Your task to perform on an android device: Turn off the flashlight Image 0: 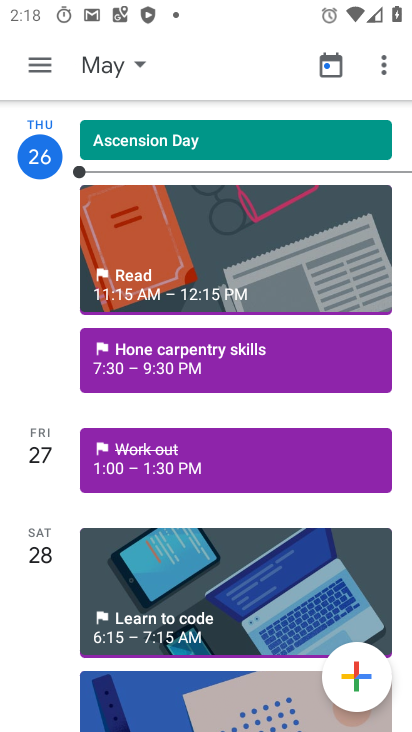
Step 0: press home button
Your task to perform on an android device: Turn off the flashlight Image 1: 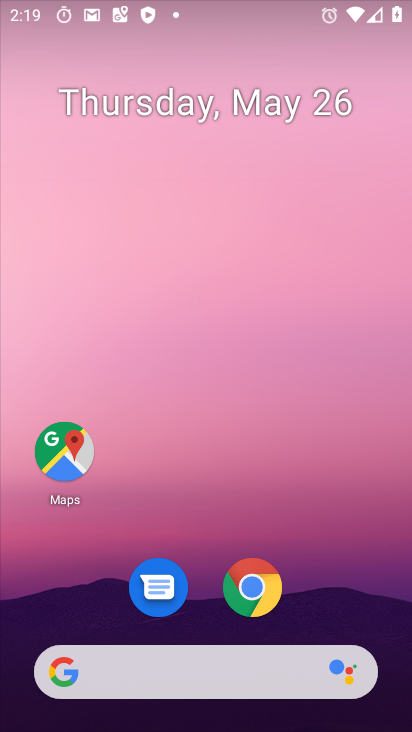
Step 1: drag from (279, 702) to (332, 180)
Your task to perform on an android device: Turn off the flashlight Image 2: 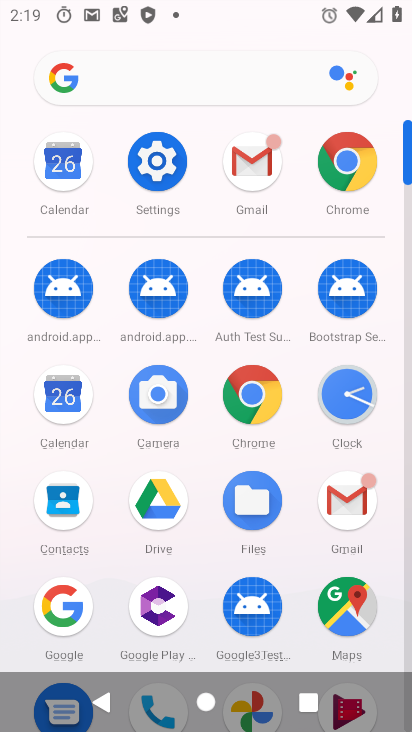
Step 2: click (154, 183)
Your task to perform on an android device: Turn off the flashlight Image 3: 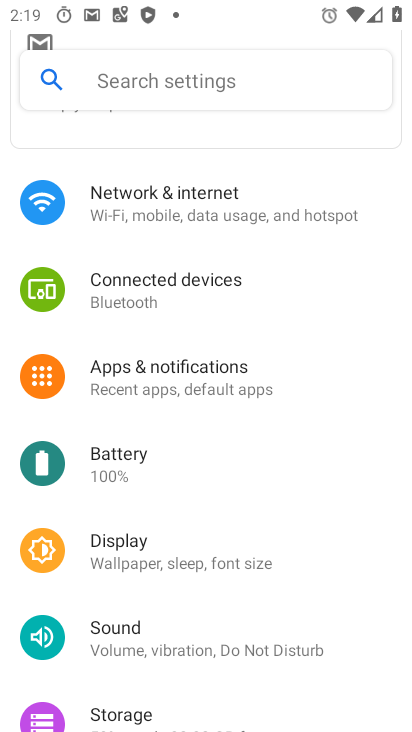
Step 3: click (145, 76)
Your task to perform on an android device: Turn off the flashlight Image 4: 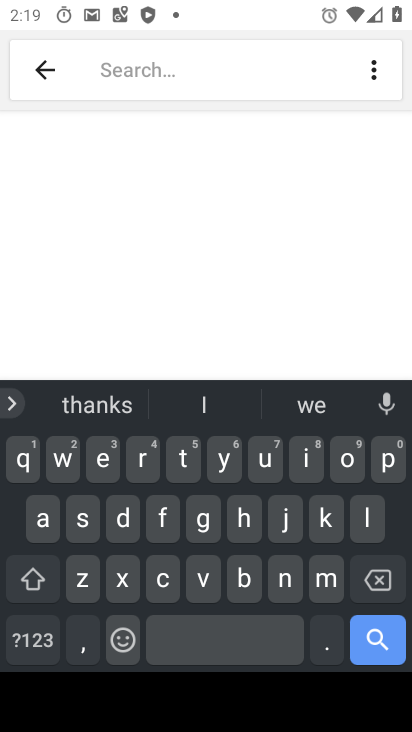
Step 4: click (166, 521)
Your task to perform on an android device: Turn off the flashlight Image 5: 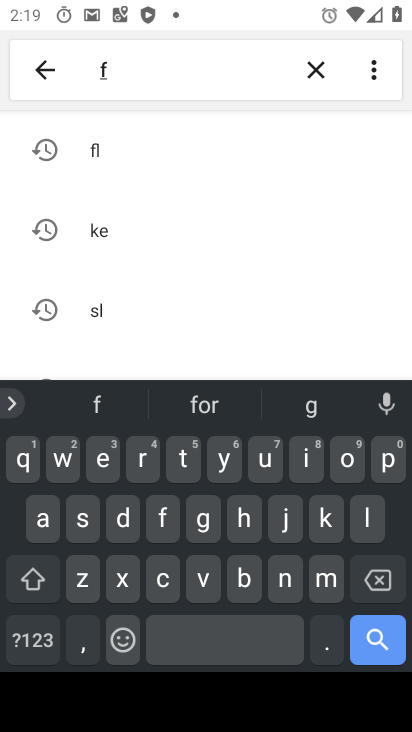
Step 5: click (364, 524)
Your task to perform on an android device: Turn off the flashlight Image 6: 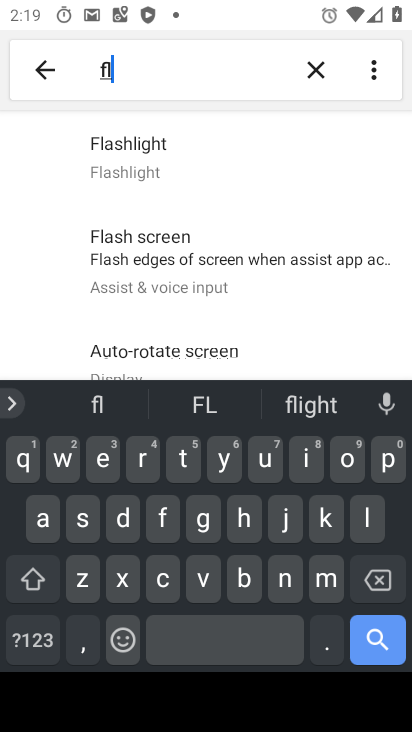
Step 6: click (141, 169)
Your task to perform on an android device: Turn off the flashlight Image 7: 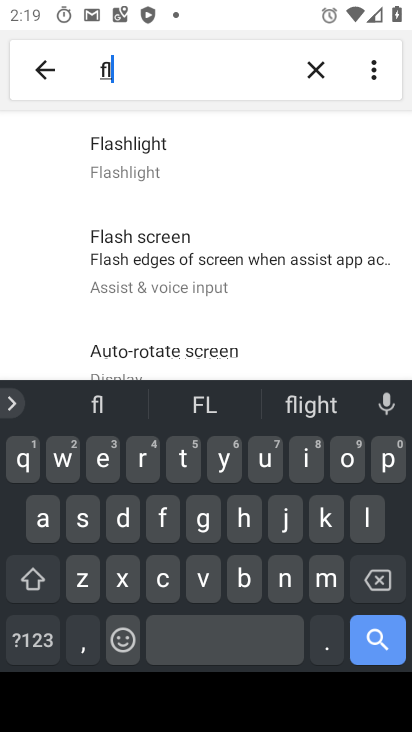
Step 7: click (153, 175)
Your task to perform on an android device: Turn off the flashlight Image 8: 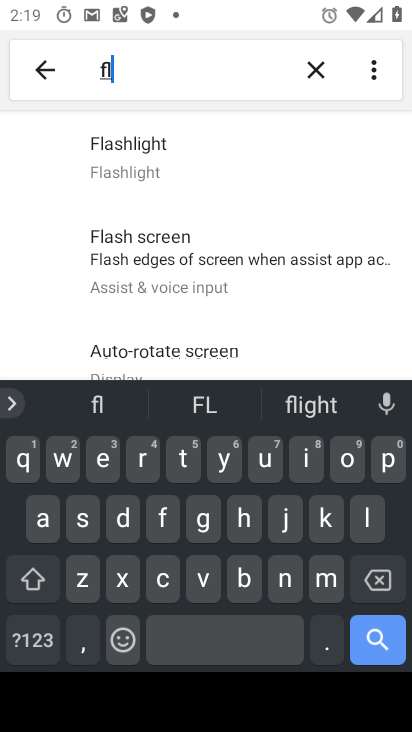
Step 8: task complete